Your task to perform on an android device: change the clock display to show seconds Image 0: 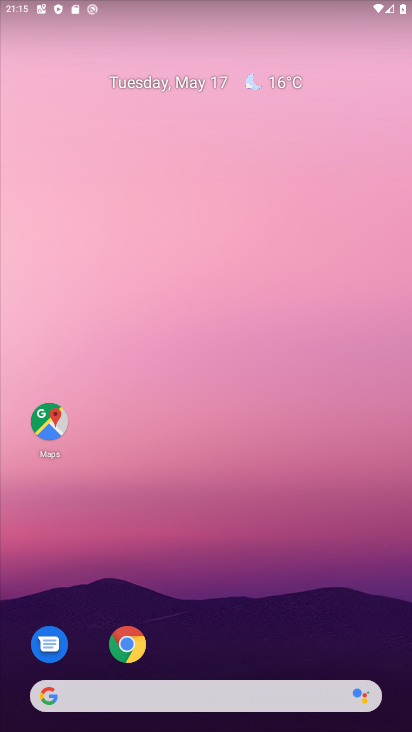
Step 0: drag from (195, 585) to (312, 89)
Your task to perform on an android device: change the clock display to show seconds Image 1: 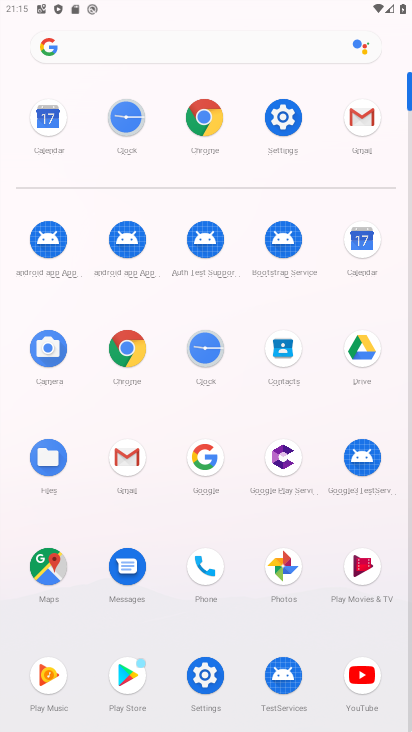
Step 1: click (125, 119)
Your task to perform on an android device: change the clock display to show seconds Image 2: 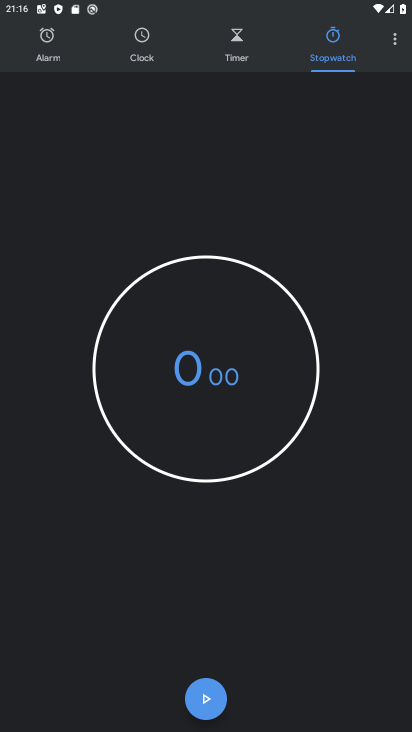
Step 2: click (394, 38)
Your task to perform on an android device: change the clock display to show seconds Image 3: 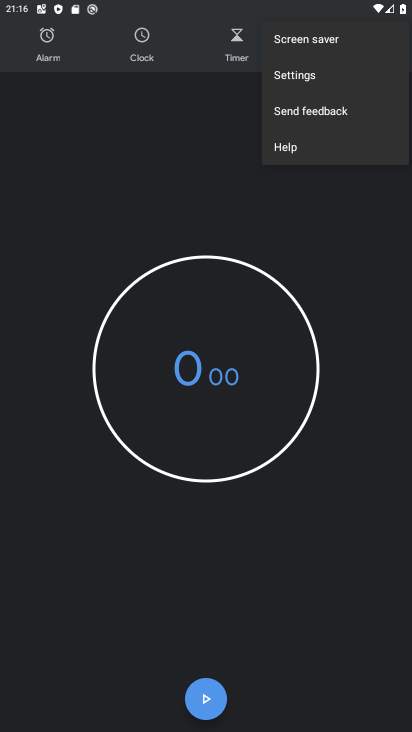
Step 3: click (310, 74)
Your task to perform on an android device: change the clock display to show seconds Image 4: 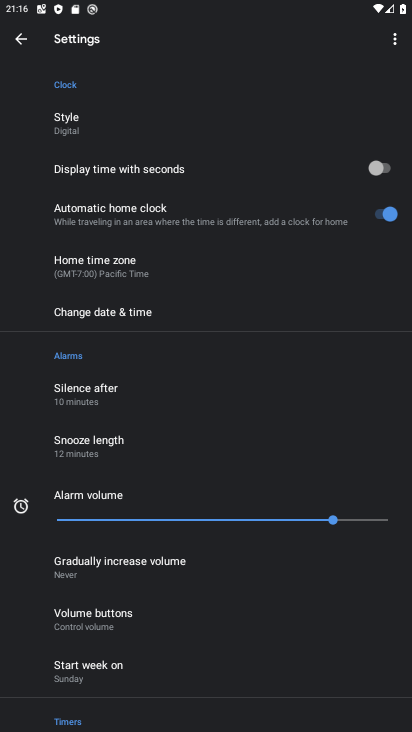
Step 4: click (365, 159)
Your task to perform on an android device: change the clock display to show seconds Image 5: 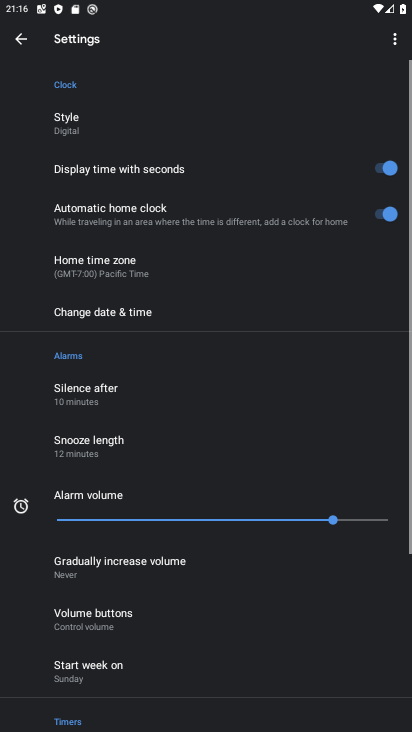
Step 5: task complete